Your task to perform on an android device: Go to Amazon Image 0: 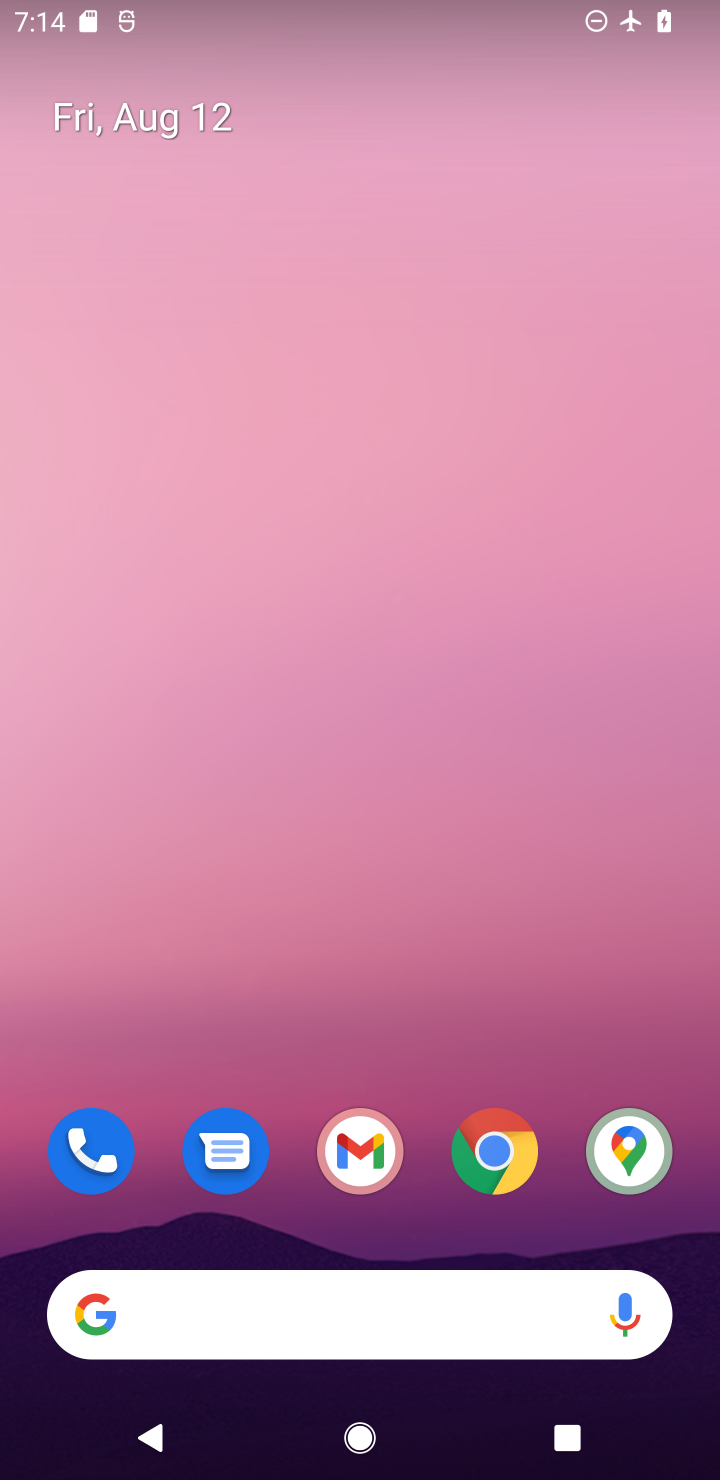
Step 0: drag from (472, 793) to (530, 70)
Your task to perform on an android device: Go to Amazon Image 1: 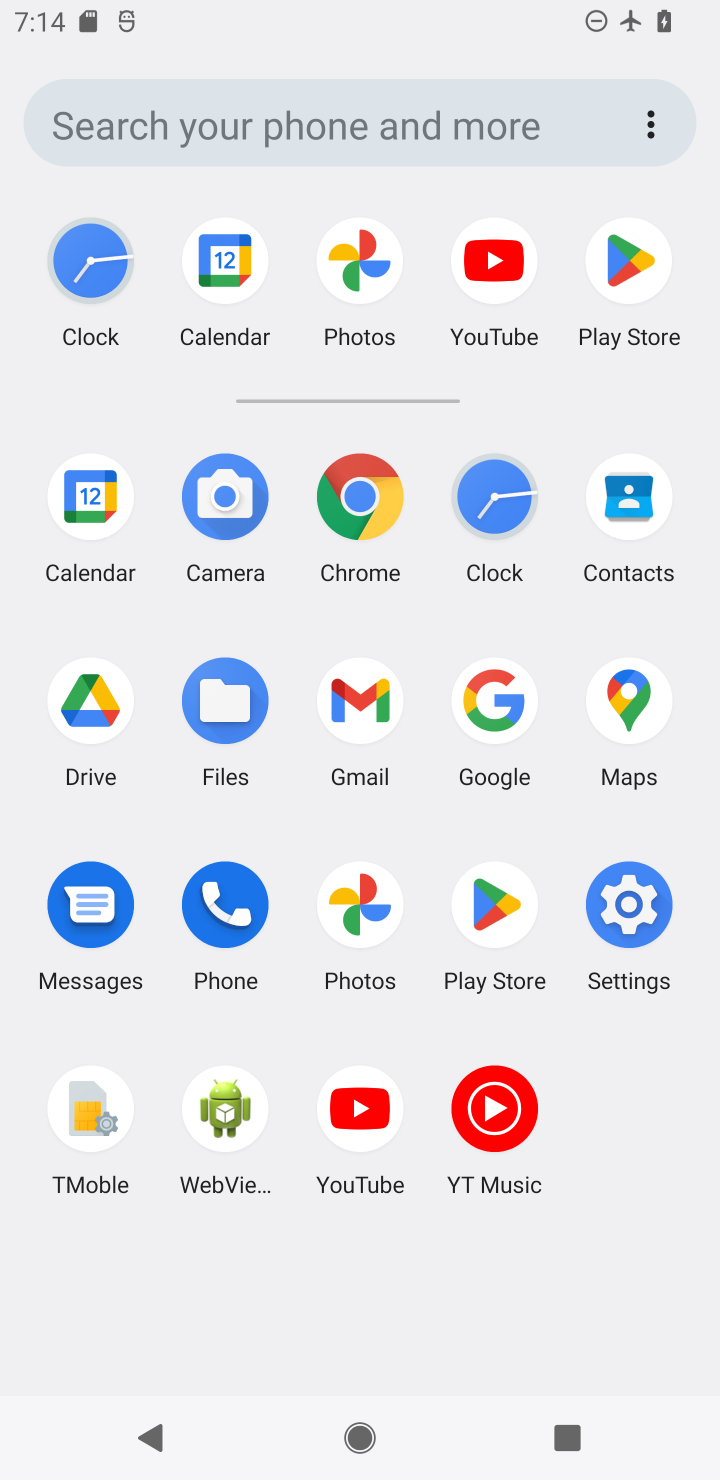
Step 1: click (366, 490)
Your task to perform on an android device: Go to Amazon Image 2: 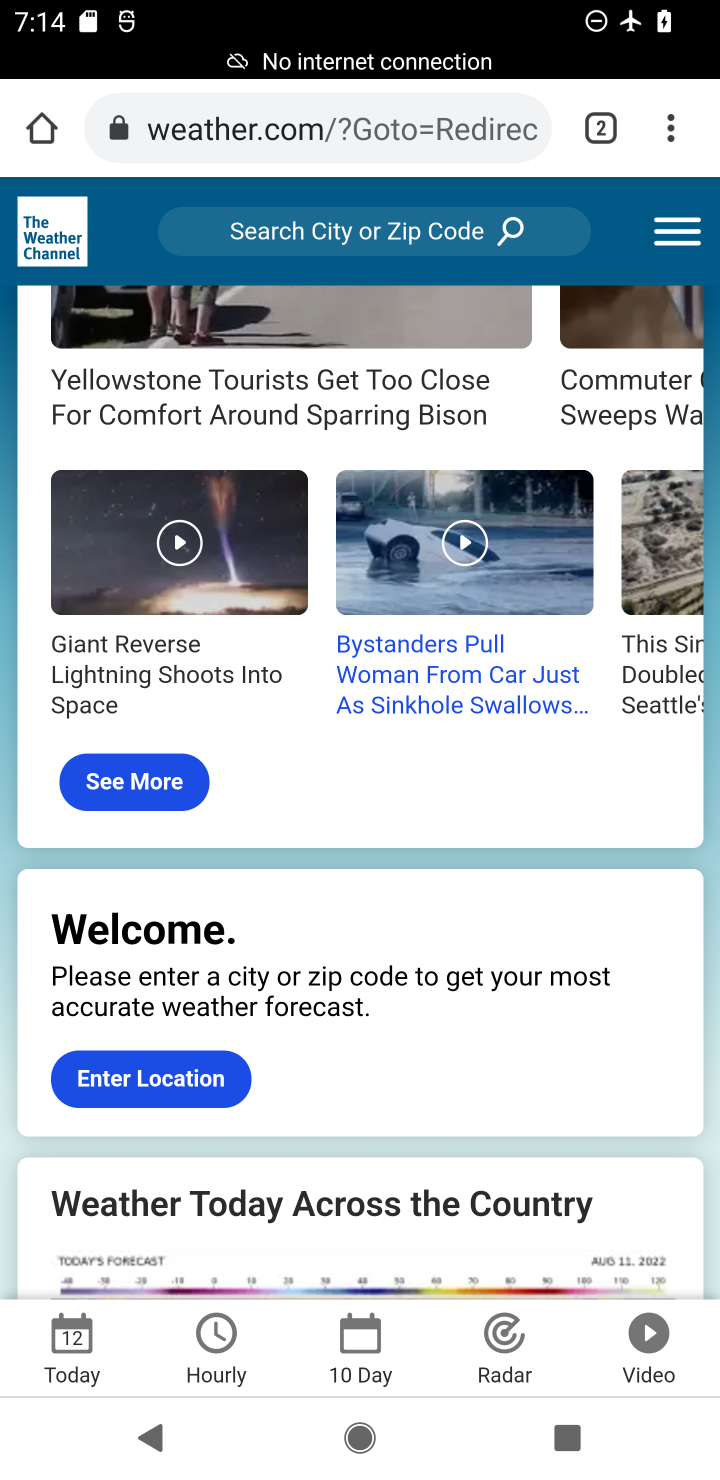
Step 2: click (420, 139)
Your task to perform on an android device: Go to Amazon Image 3: 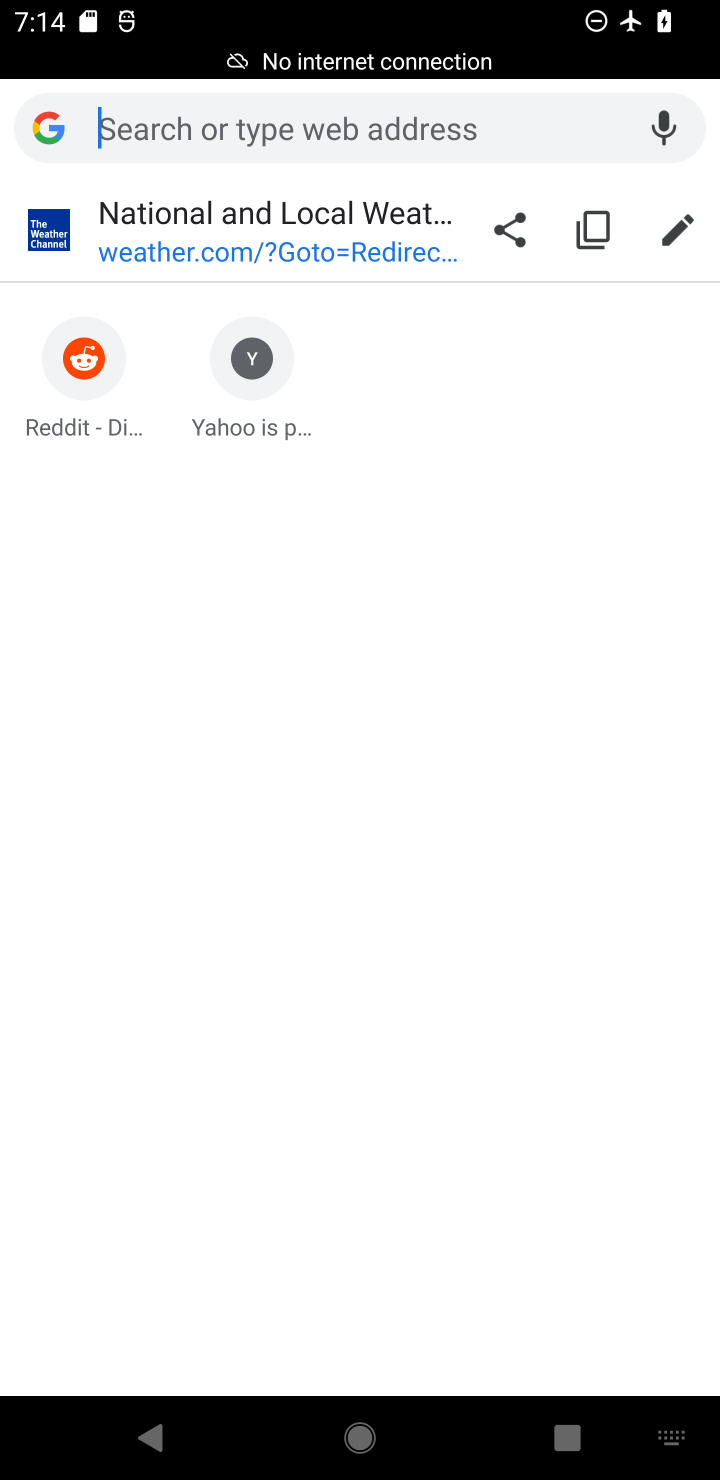
Step 3: type "am"
Your task to perform on an android device: Go to Amazon Image 4: 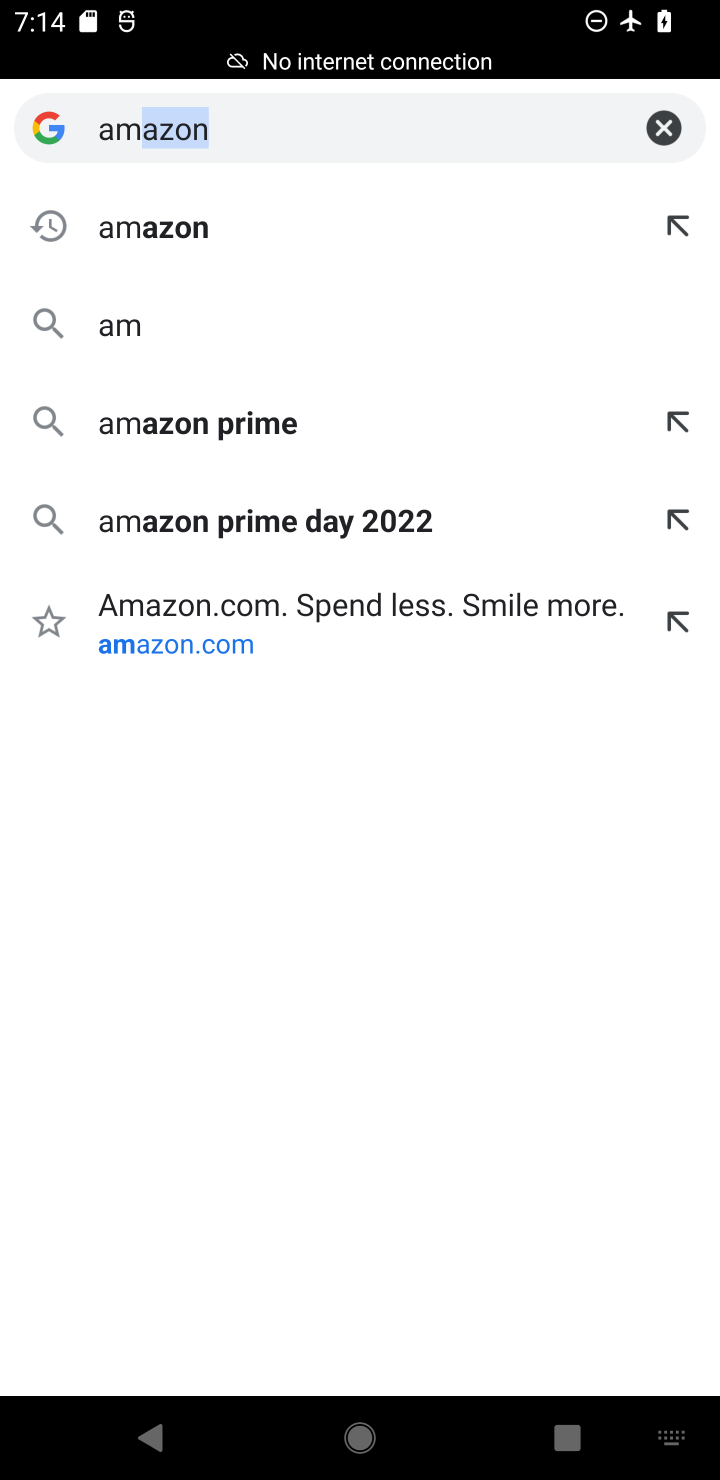
Step 4: type "a"
Your task to perform on an android device: Go to Amazon Image 5: 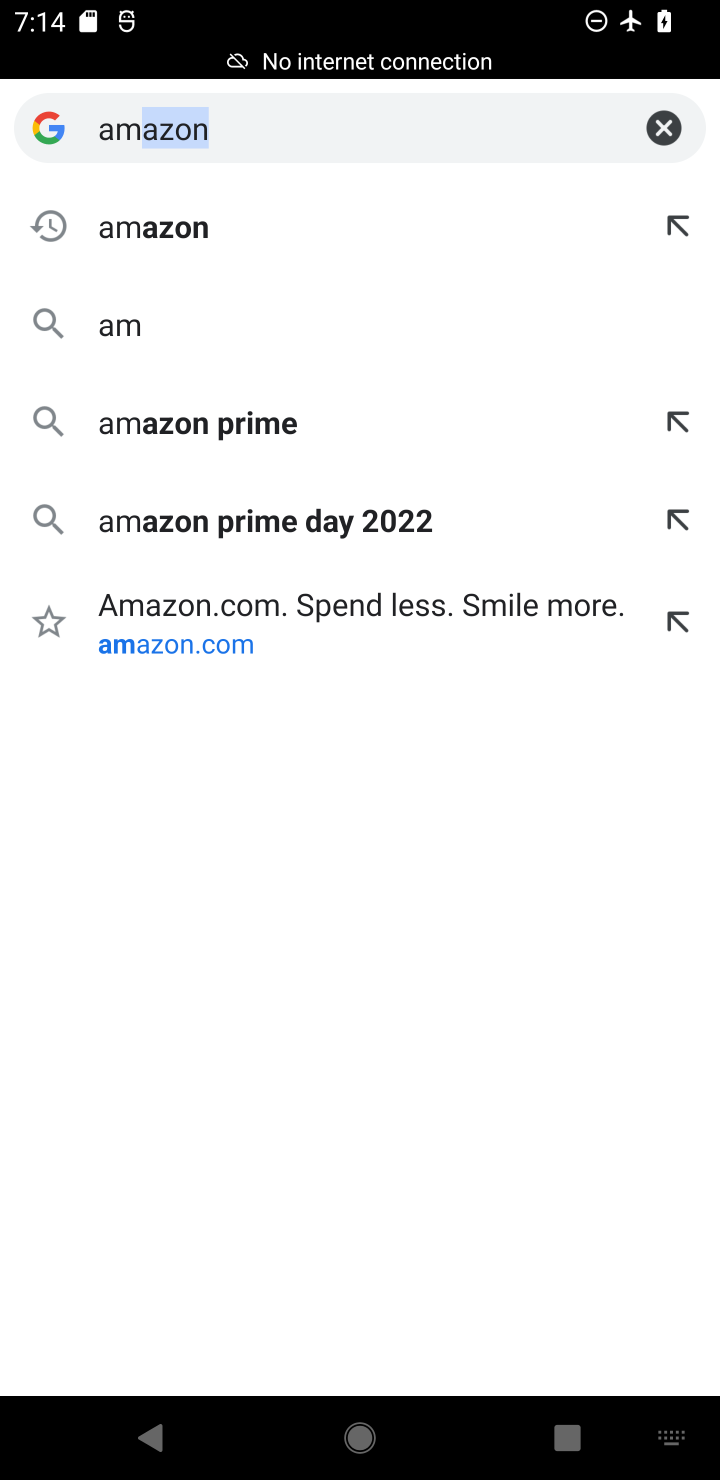
Step 5: click (179, 230)
Your task to perform on an android device: Go to Amazon Image 6: 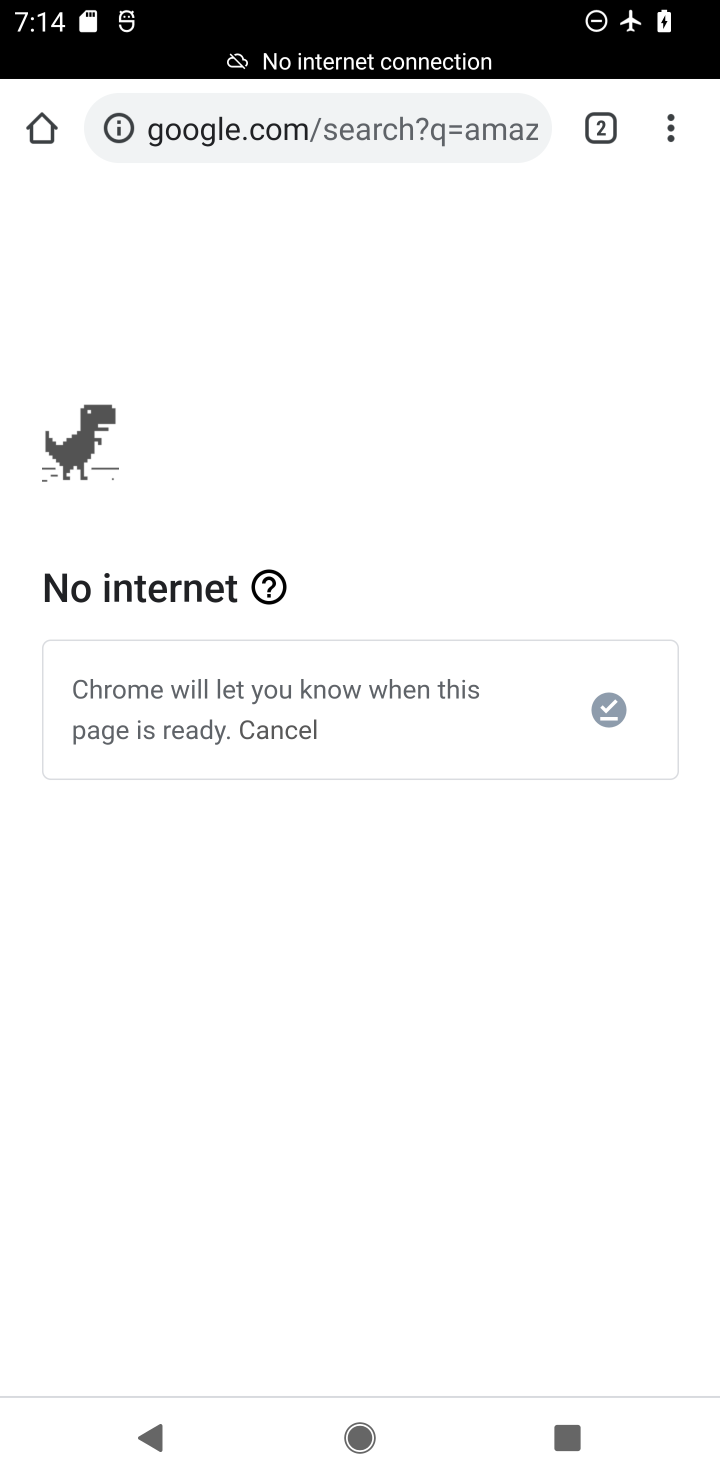
Step 6: task complete